Your task to perform on an android device: Turn off the flashlight Image 0: 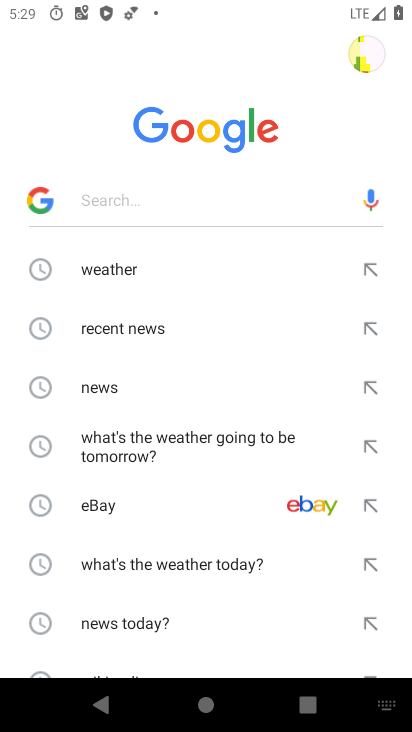
Step 0: press back button
Your task to perform on an android device: Turn off the flashlight Image 1: 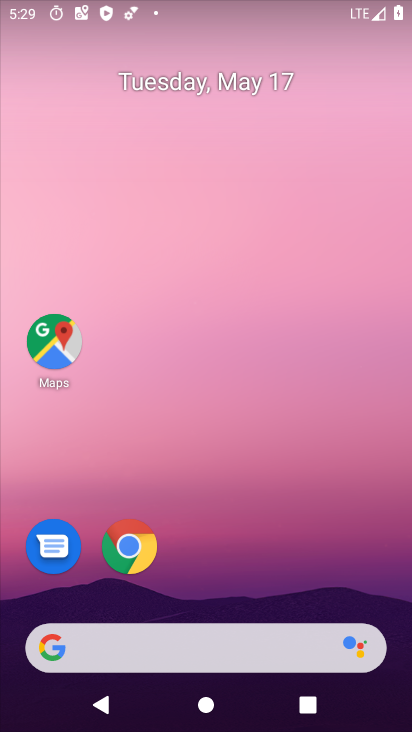
Step 1: task complete